Your task to perform on an android device: open app "Messages" (install if not already installed) Image 0: 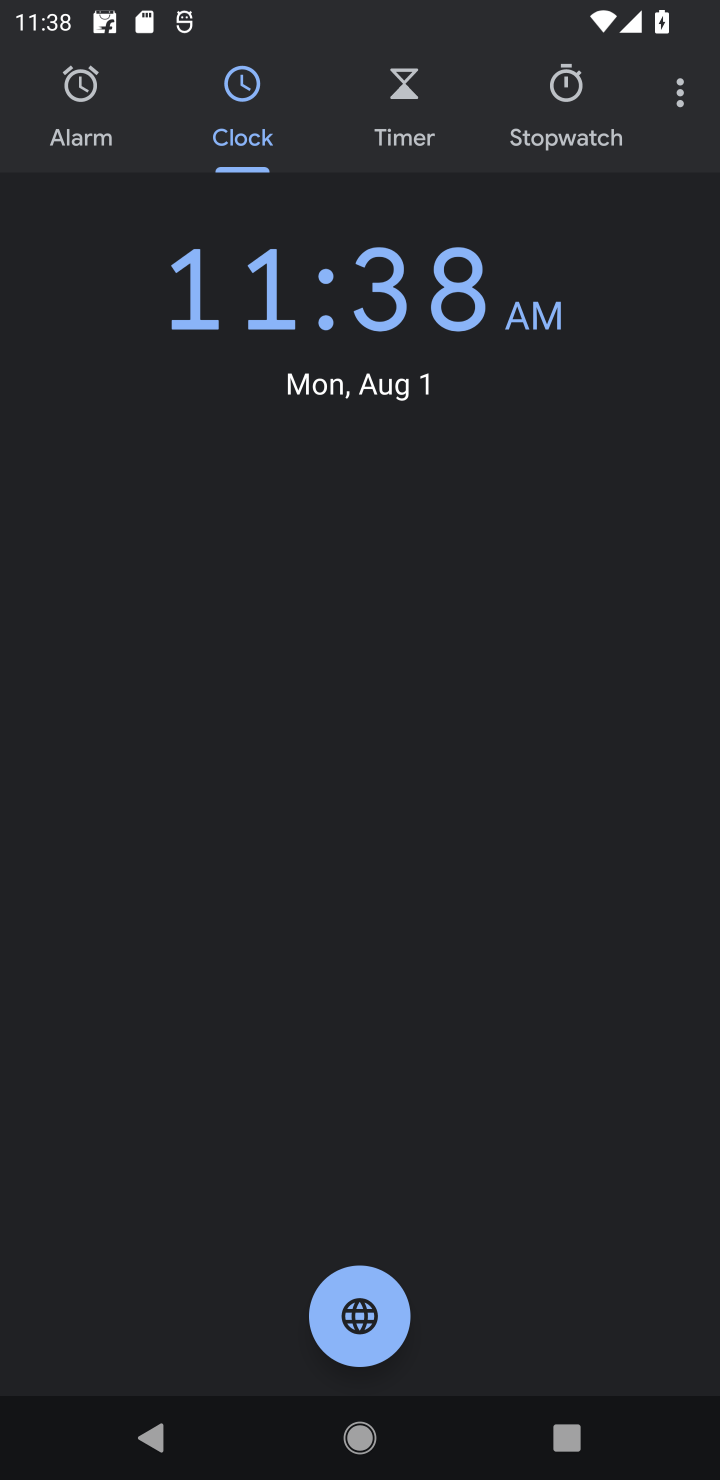
Step 0: press home button
Your task to perform on an android device: open app "Messages" (install if not already installed) Image 1: 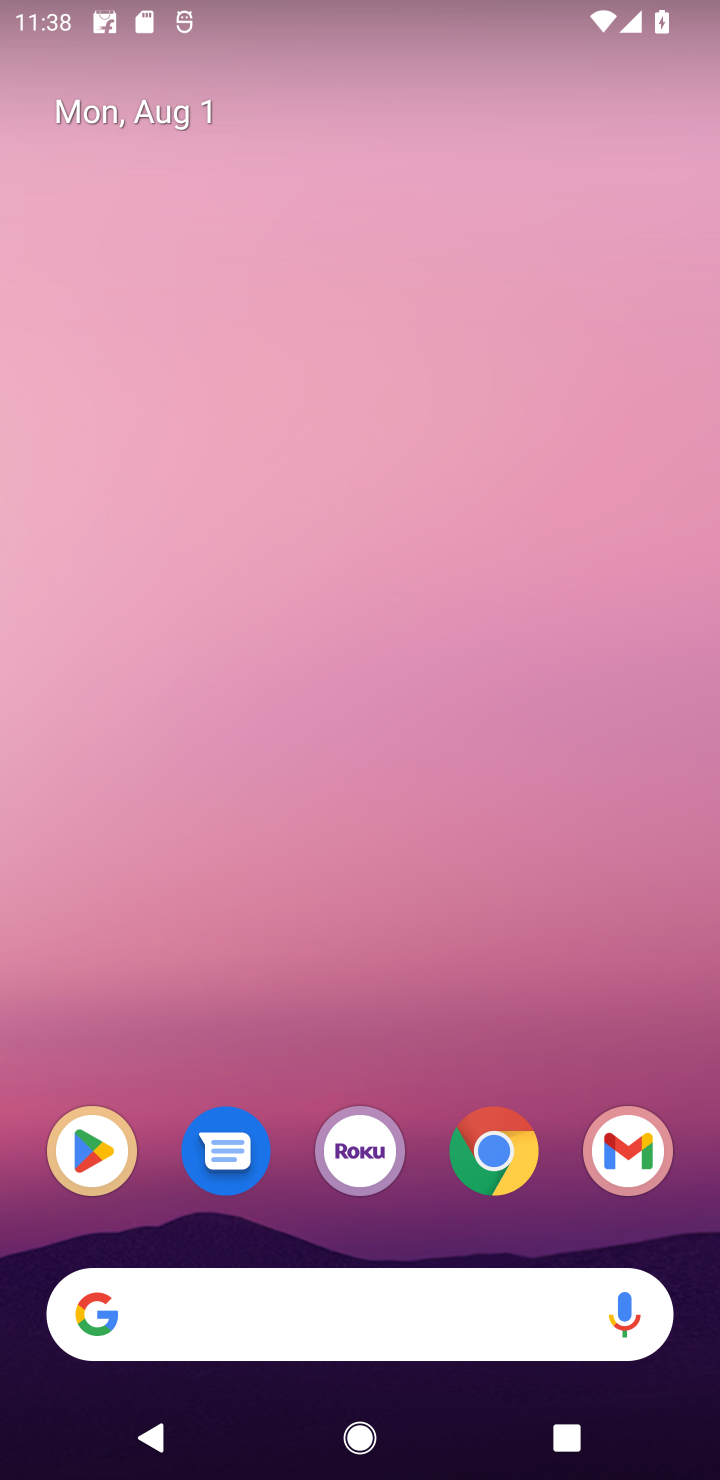
Step 1: click (92, 1172)
Your task to perform on an android device: open app "Messages" (install if not already installed) Image 2: 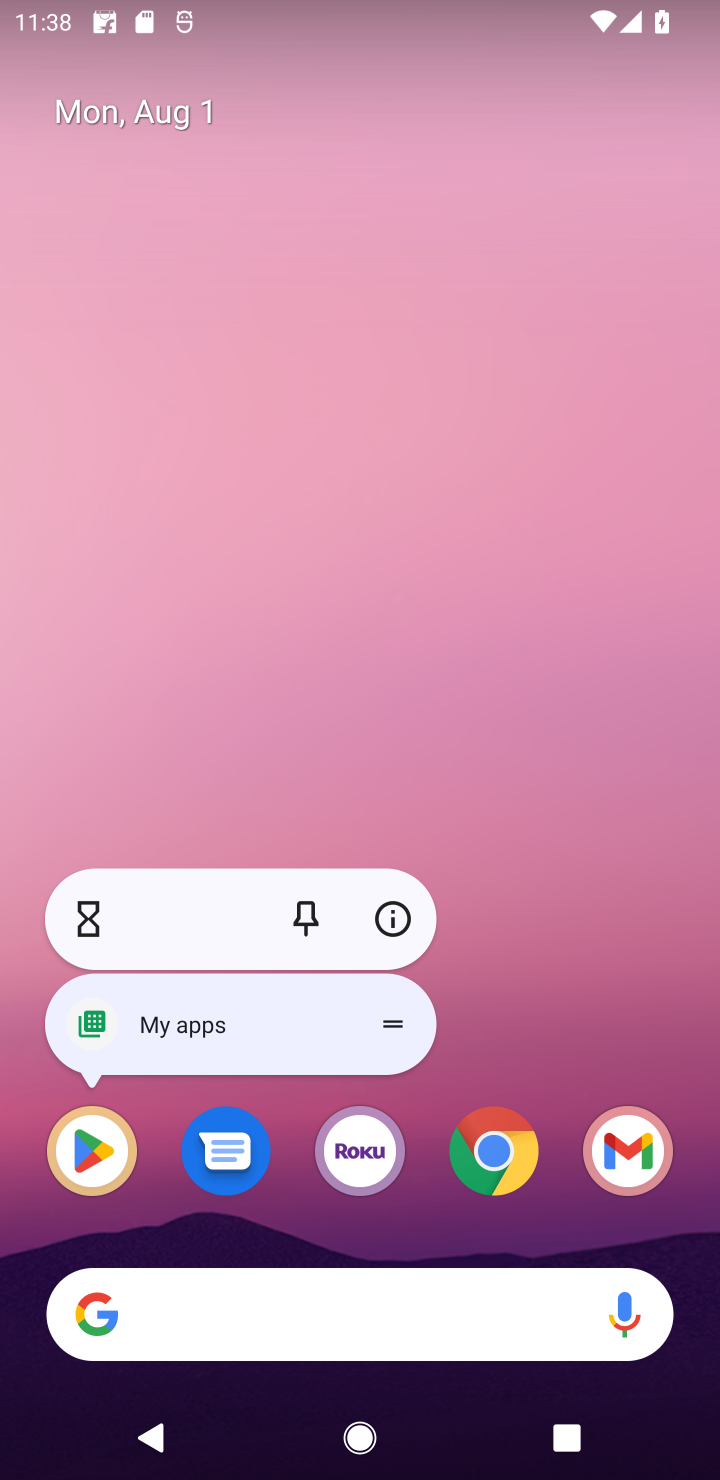
Step 2: click (88, 1162)
Your task to perform on an android device: open app "Messages" (install if not already installed) Image 3: 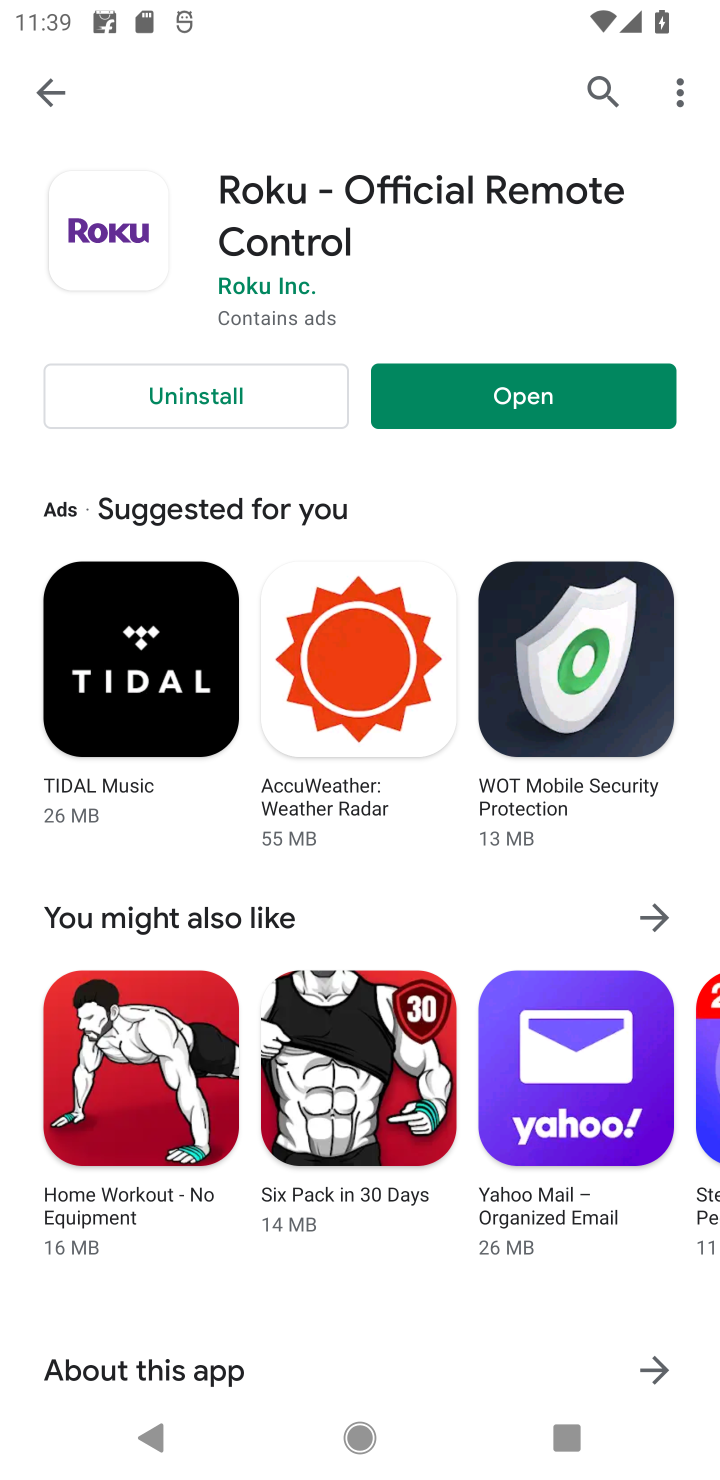
Step 3: click (620, 94)
Your task to perform on an android device: open app "Messages" (install if not already installed) Image 4: 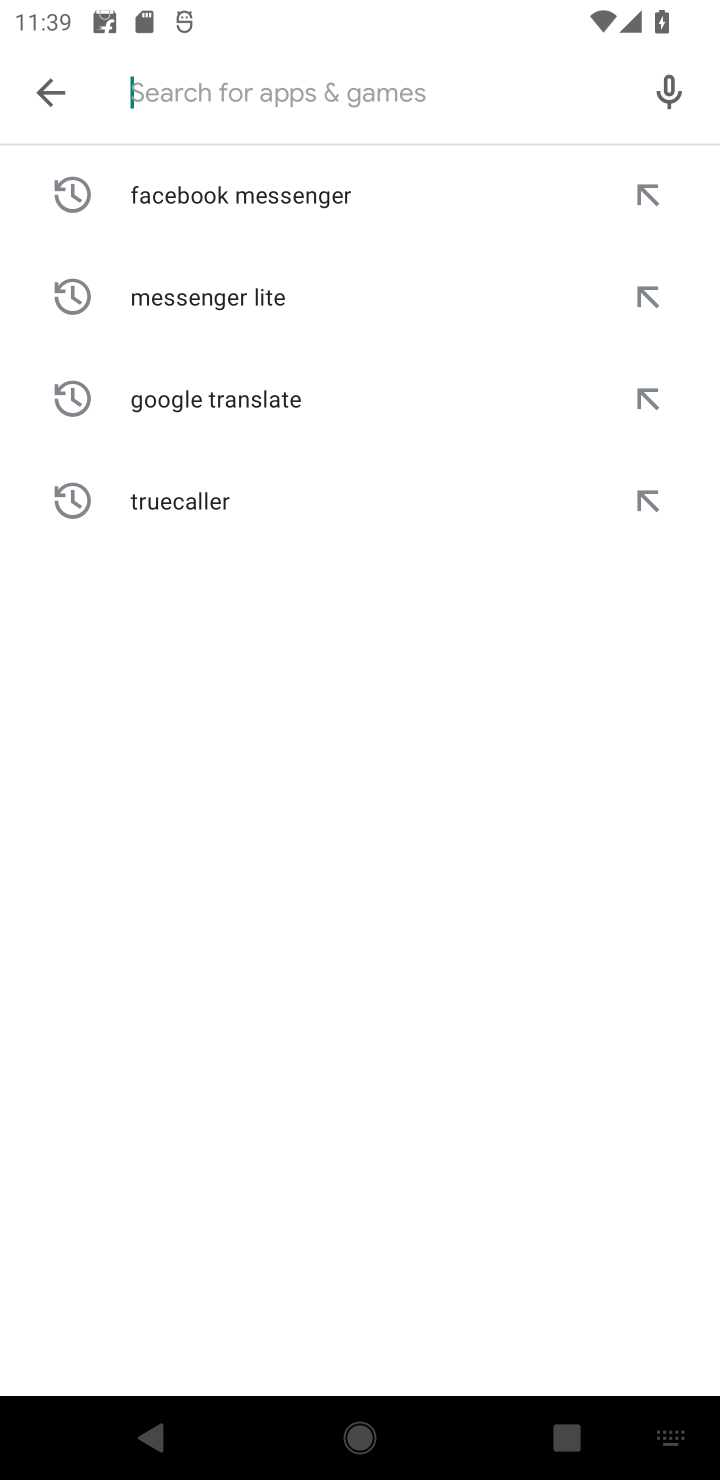
Step 4: type "Messages"
Your task to perform on an android device: open app "Messages" (install if not already installed) Image 5: 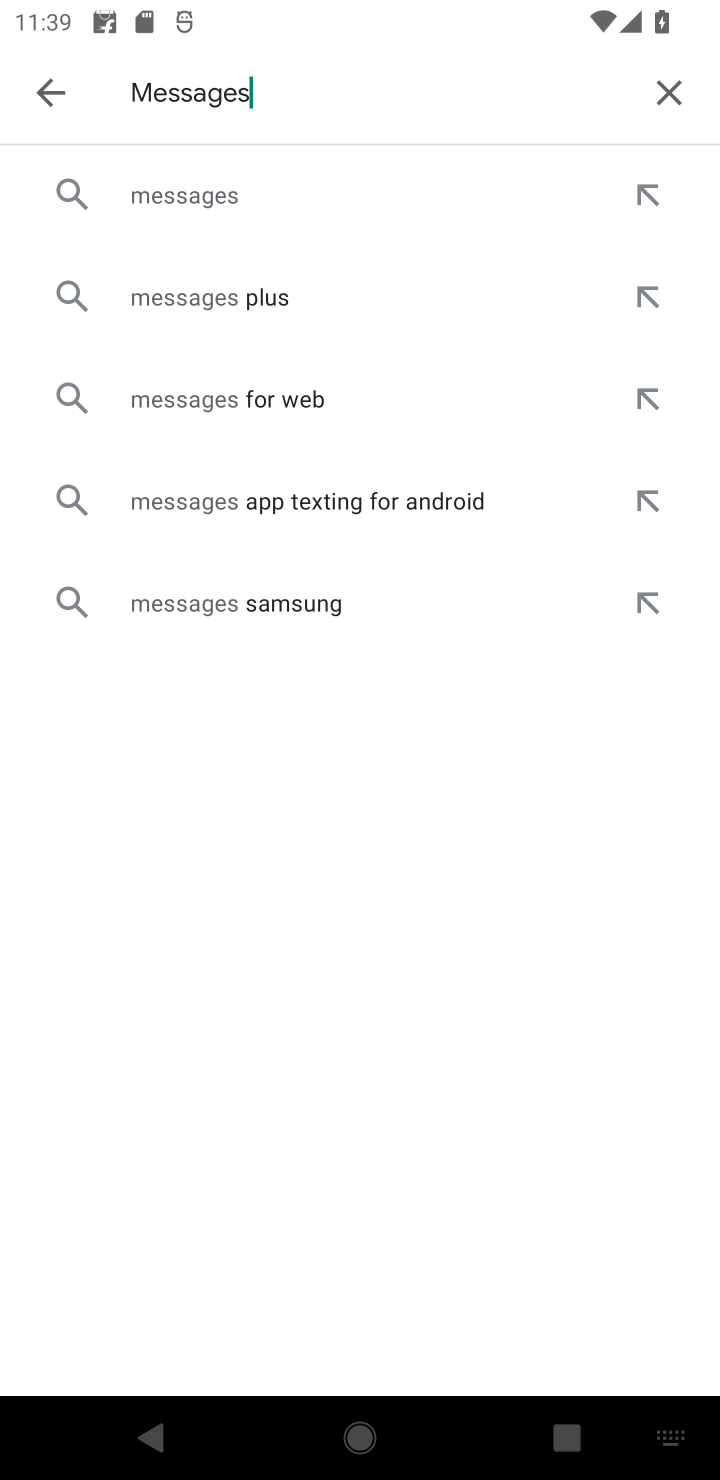
Step 5: click (223, 192)
Your task to perform on an android device: open app "Messages" (install if not already installed) Image 6: 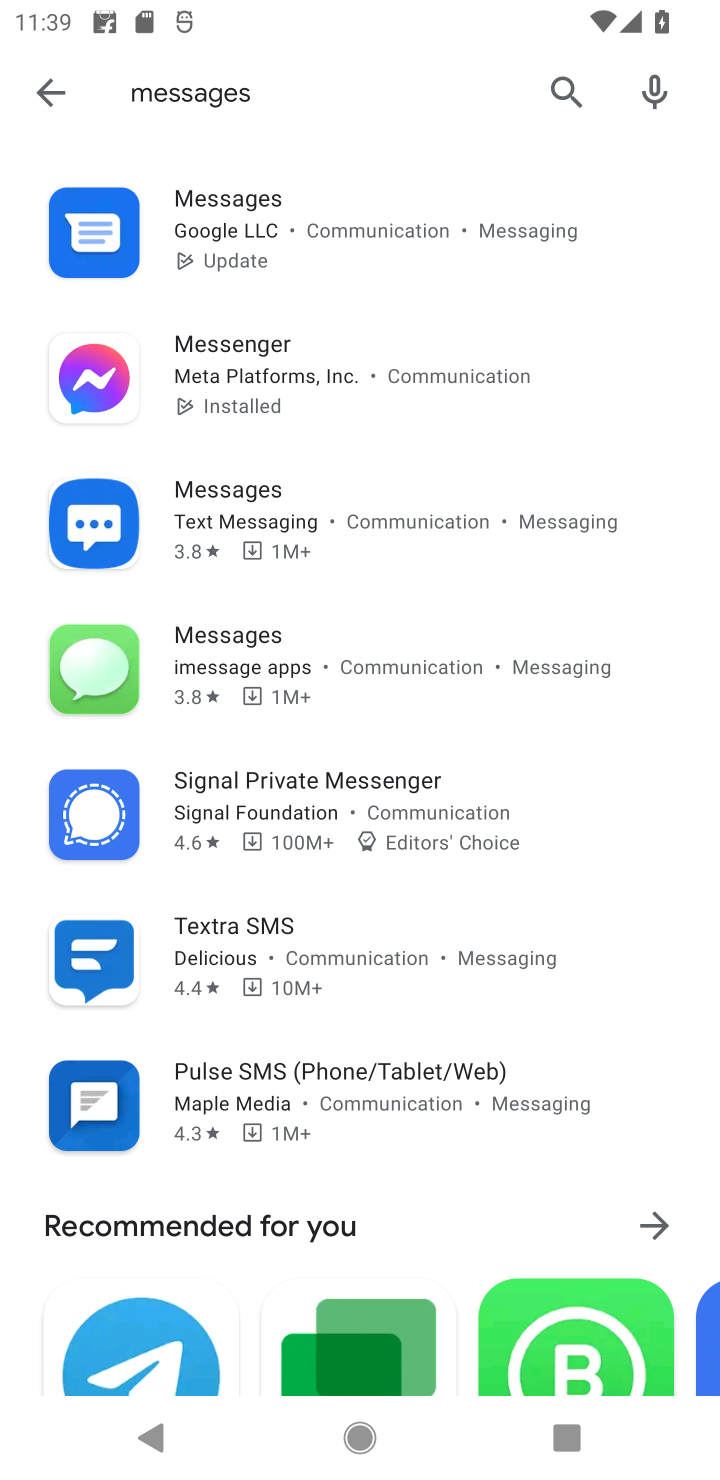
Step 6: click (301, 230)
Your task to perform on an android device: open app "Messages" (install if not already installed) Image 7: 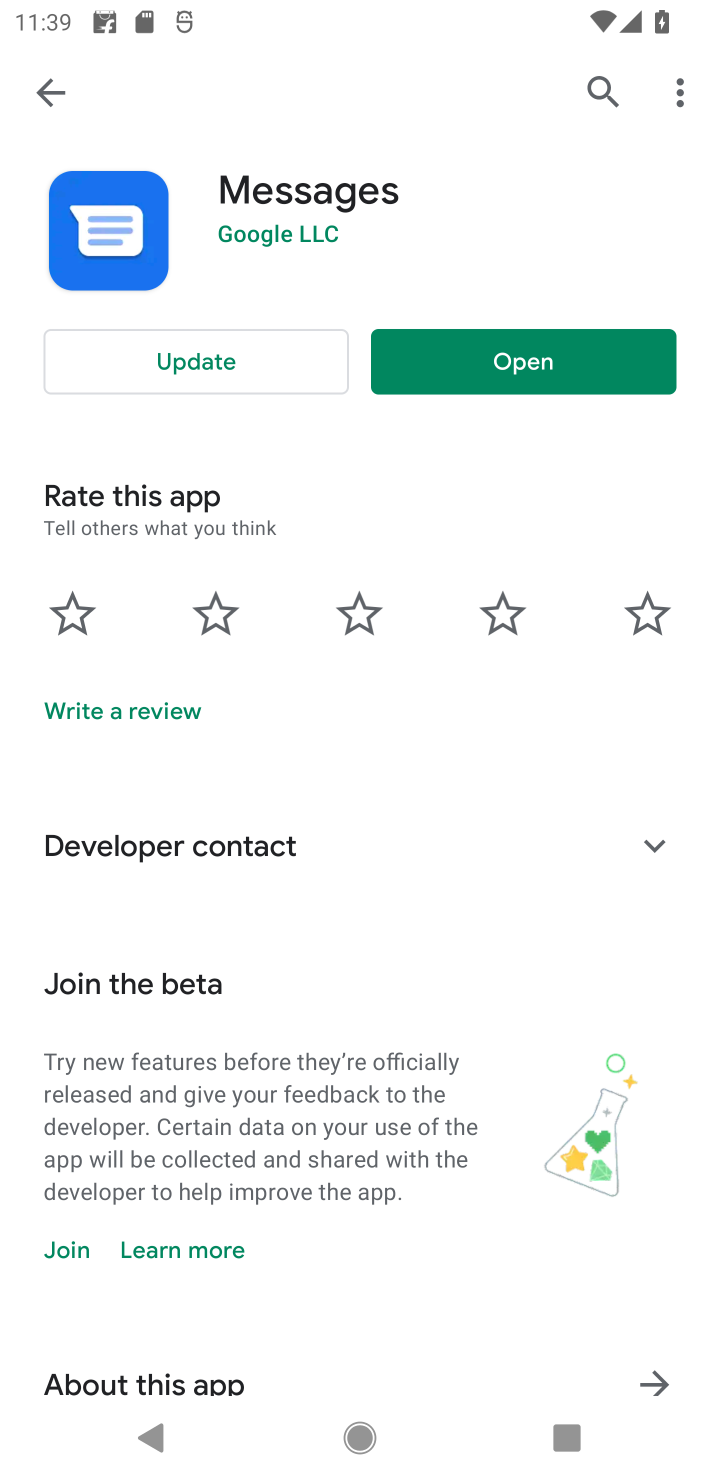
Step 7: click (487, 352)
Your task to perform on an android device: open app "Messages" (install if not already installed) Image 8: 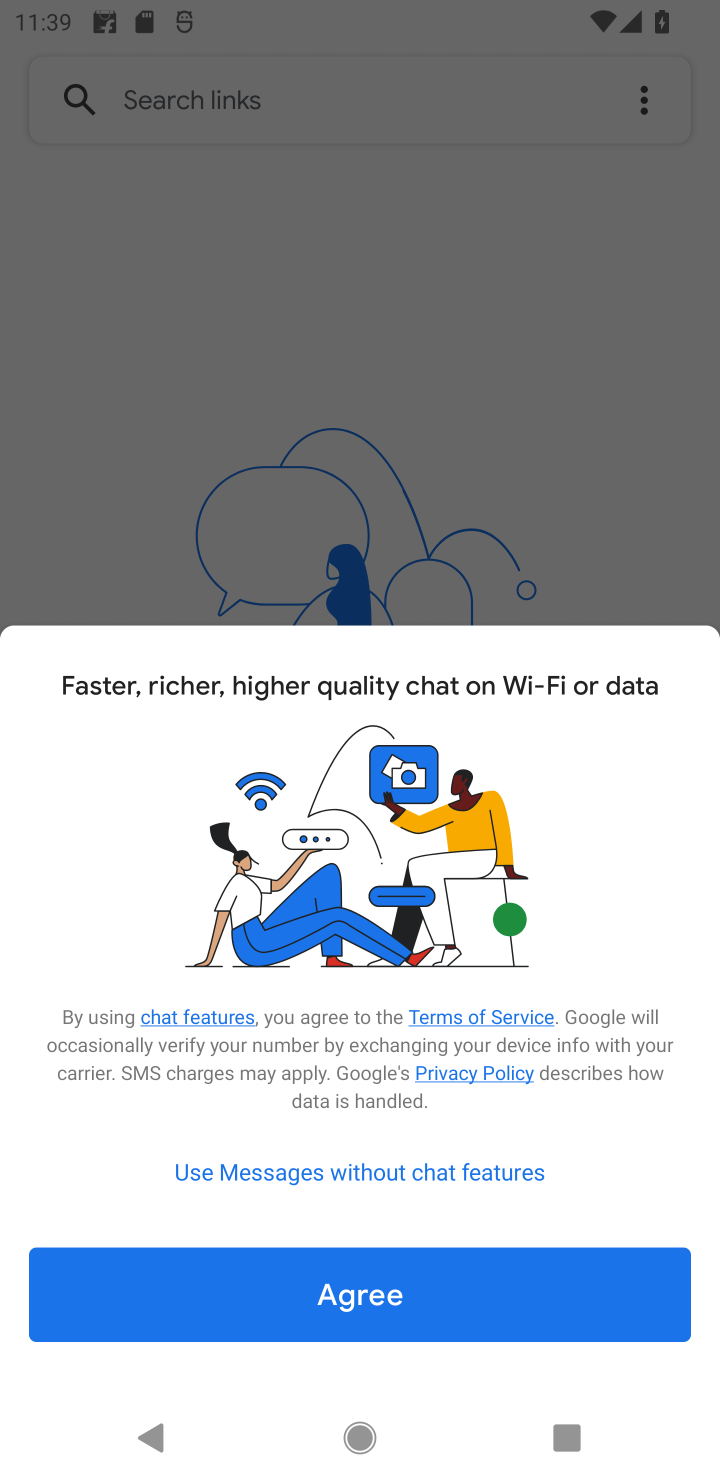
Step 8: task complete